Your task to perform on an android device: Search for pizza restaurants on Maps Image 0: 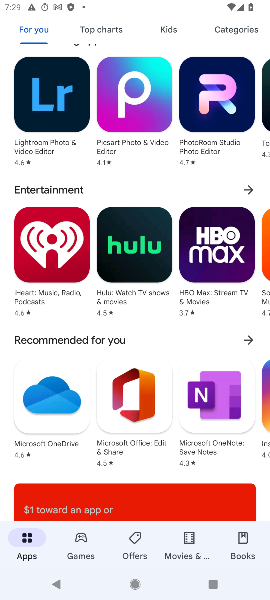
Step 0: drag from (147, 496) to (159, 254)
Your task to perform on an android device: Search for pizza restaurants on Maps Image 1: 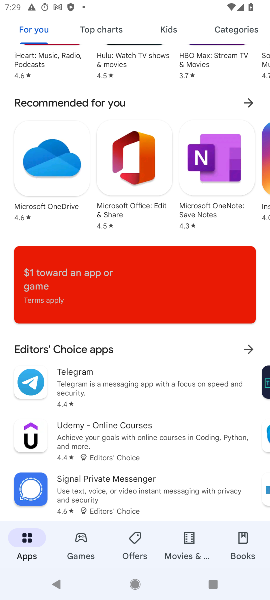
Step 1: press home button
Your task to perform on an android device: Search for pizza restaurants on Maps Image 2: 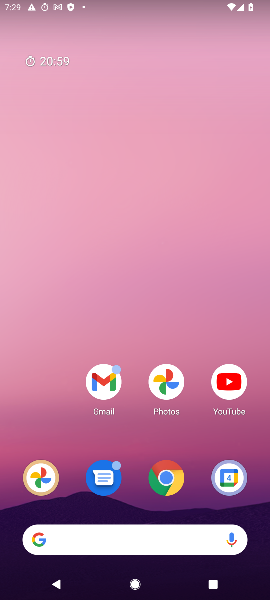
Step 2: drag from (127, 501) to (196, 326)
Your task to perform on an android device: Search for pizza restaurants on Maps Image 3: 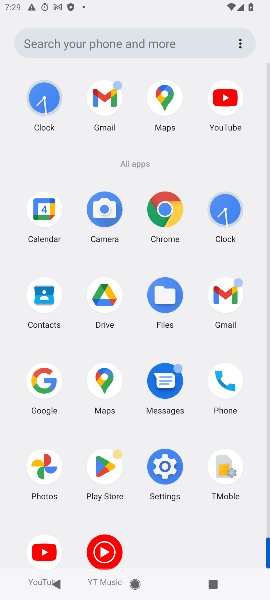
Step 3: click (117, 375)
Your task to perform on an android device: Search for pizza restaurants on Maps Image 4: 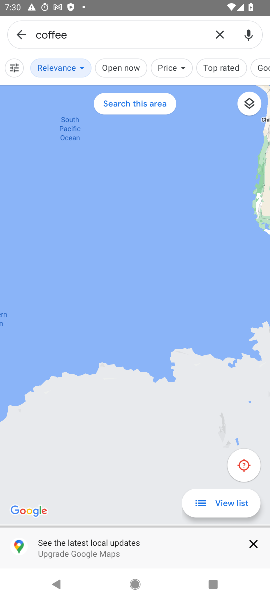
Step 4: click (220, 38)
Your task to perform on an android device: Search for pizza restaurants on Maps Image 5: 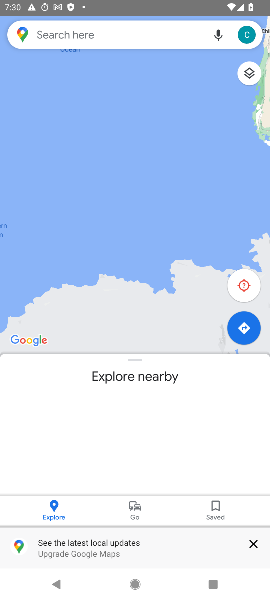
Step 5: click (128, 31)
Your task to perform on an android device: Search for pizza restaurants on Maps Image 6: 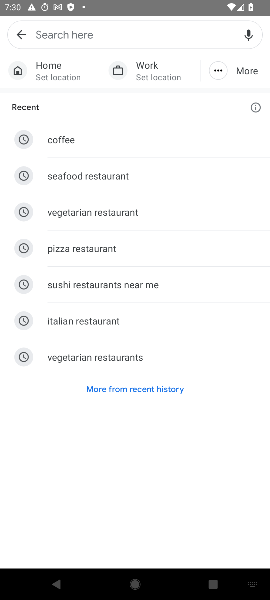
Step 6: click (75, 248)
Your task to perform on an android device: Search for pizza restaurants on Maps Image 7: 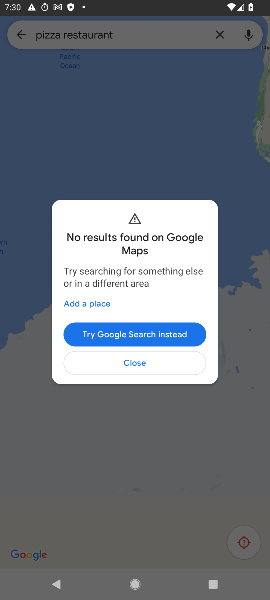
Step 7: click (128, 362)
Your task to perform on an android device: Search for pizza restaurants on Maps Image 8: 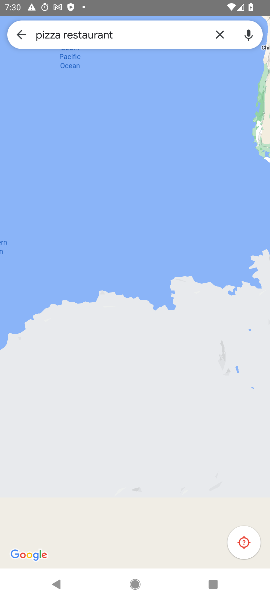
Step 8: task complete